Your task to perform on an android device: turn pop-ups on in chrome Image 0: 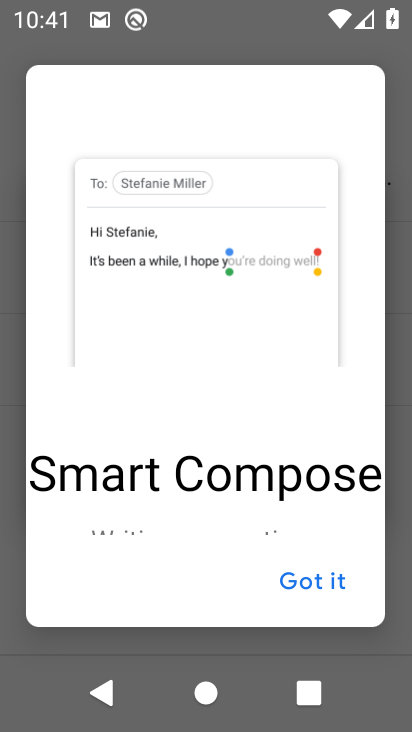
Step 0: press home button
Your task to perform on an android device: turn pop-ups on in chrome Image 1: 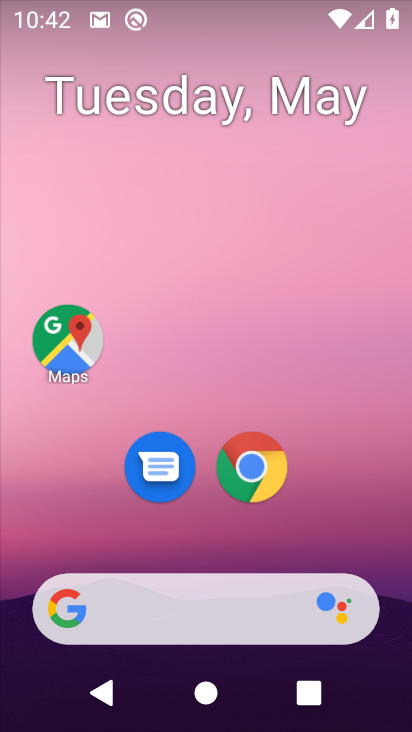
Step 1: drag from (170, 446) to (183, 400)
Your task to perform on an android device: turn pop-ups on in chrome Image 2: 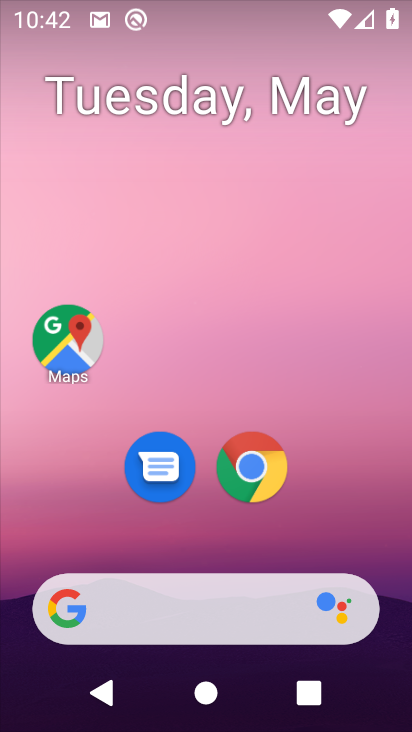
Step 2: click (239, 449)
Your task to perform on an android device: turn pop-ups on in chrome Image 3: 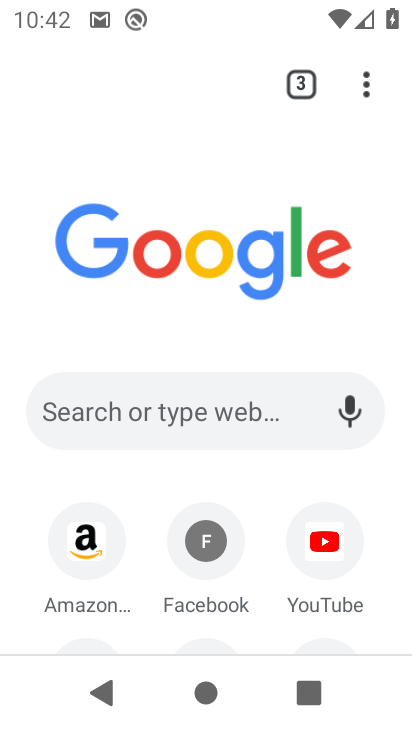
Step 3: click (361, 94)
Your task to perform on an android device: turn pop-ups on in chrome Image 4: 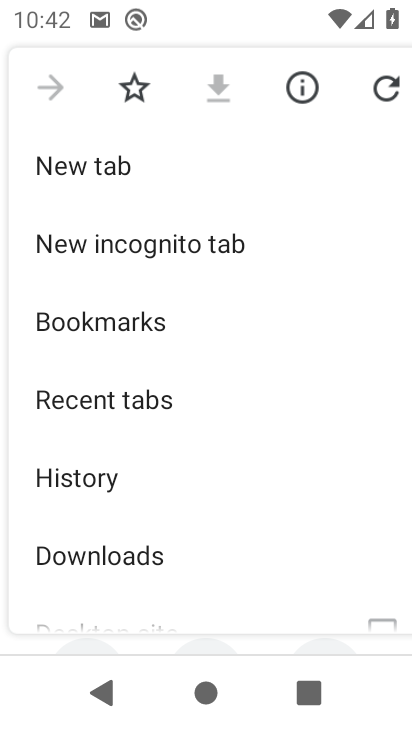
Step 4: drag from (154, 503) to (276, 21)
Your task to perform on an android device: turn pop-ups on in chrome Image 5: 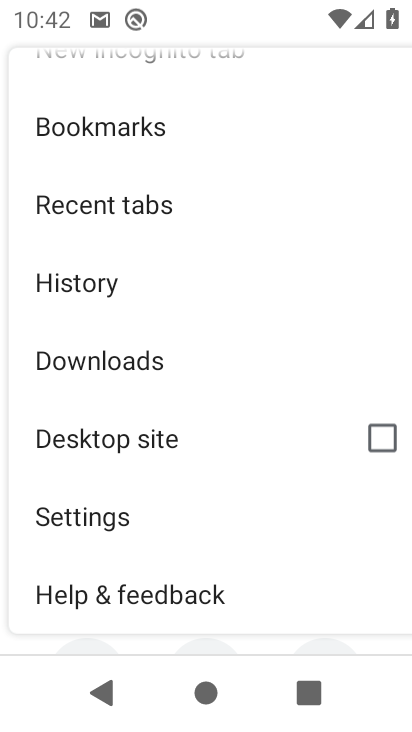
Step 5: click (137, 500)
Your task to perform on an android device: turn pop-ups on in chrome Image 6: 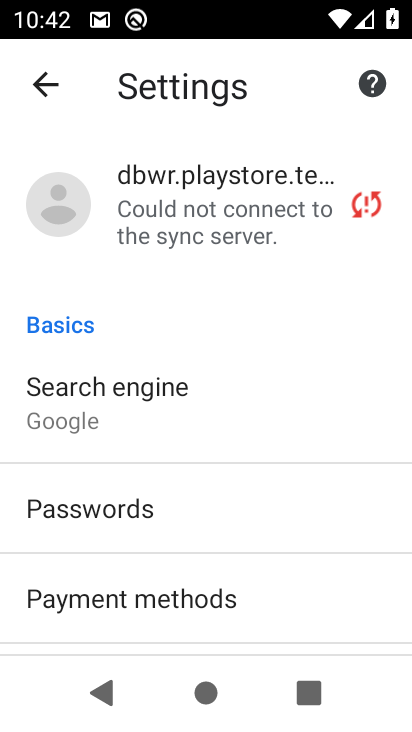
Step 6: drag from (219, 600) to (218, 138)
Your task to perform on an android device: turn pop-ups on in chrome Image 7: 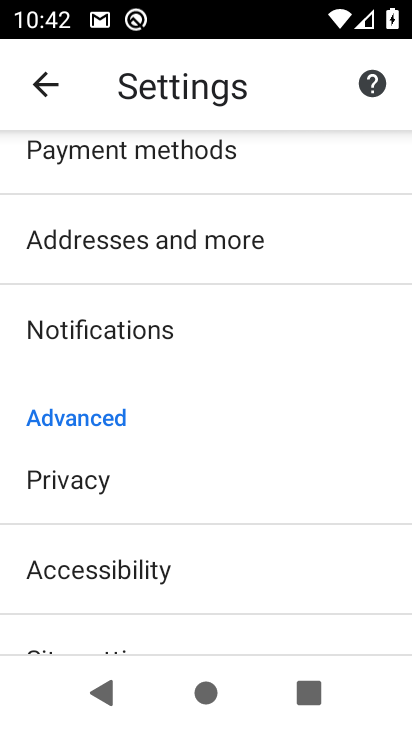
Step 7: drag from (185, 575) to (222, 321)
Your task to perform on an android device: turn pop-ups on in chrome Image 8: 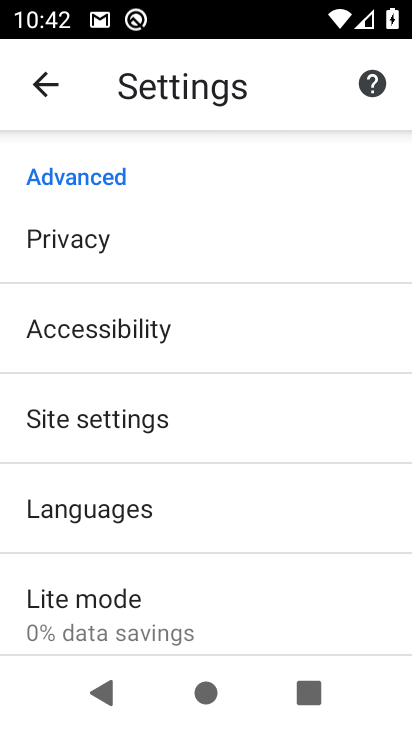
Step 8: click (122, 415)
Your task to perform on an android device: turn pop-ups on in chrome Image 9: 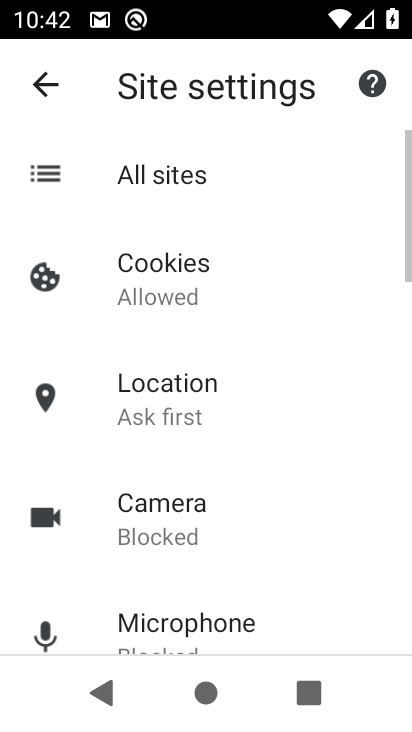
Step 9: drag from (236, 529) to (331, 17)
Your task to perform on an android device: turn pop-ups on in chrome Image 10: 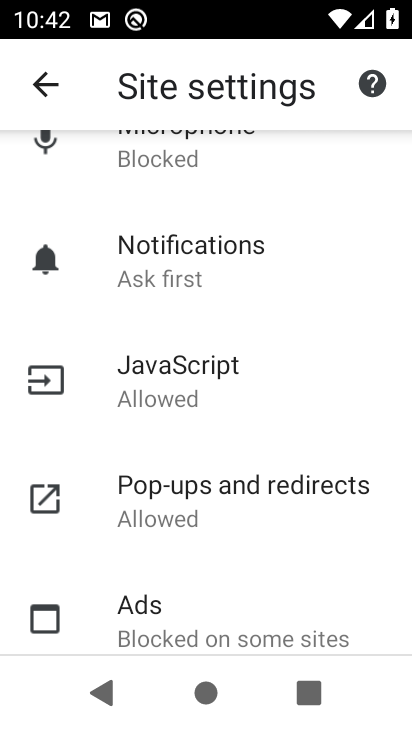
Step 10: click (200, 481)
Your task to perform on an android device: turn pop-ups on in chrome Image 11: 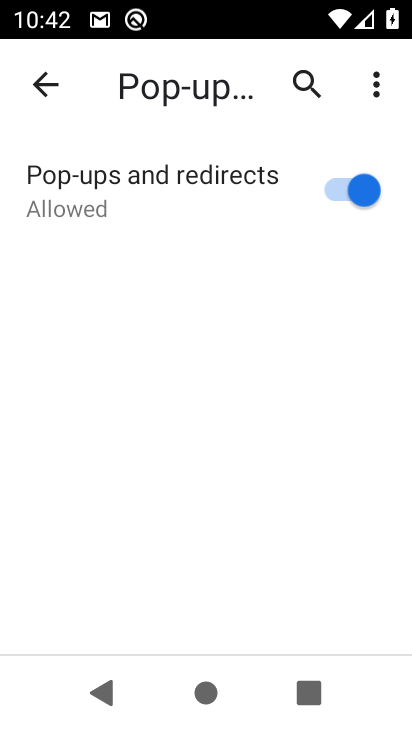
Step 11: drag from (275, 479) to (335, 223)
Your task to perform on an android device: turn pop-ups on in chrome Image 12: 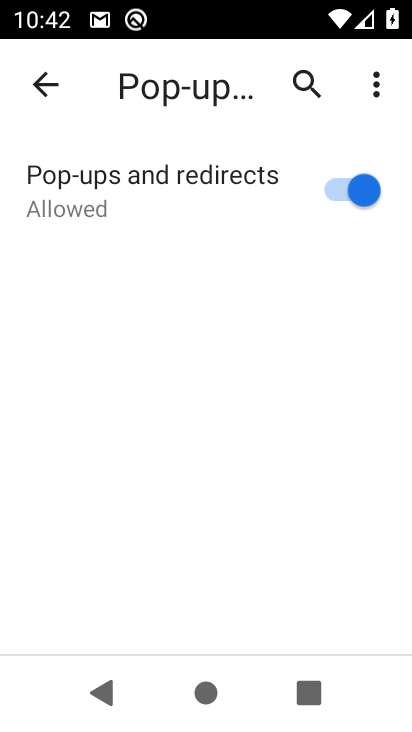
Step 12: click (346, 175)
Your task to perform on an android device: turn pop-ups on in chrome Image 13: 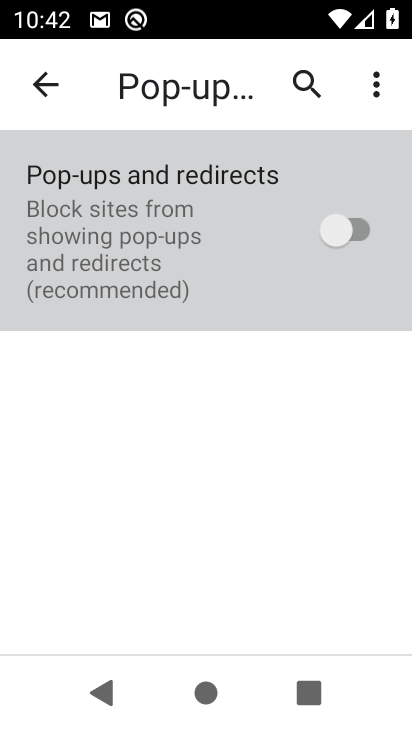
Step 13: click (346, 175)
Your task to perform on an android device: turn pop-ups on in chrome Image 14: 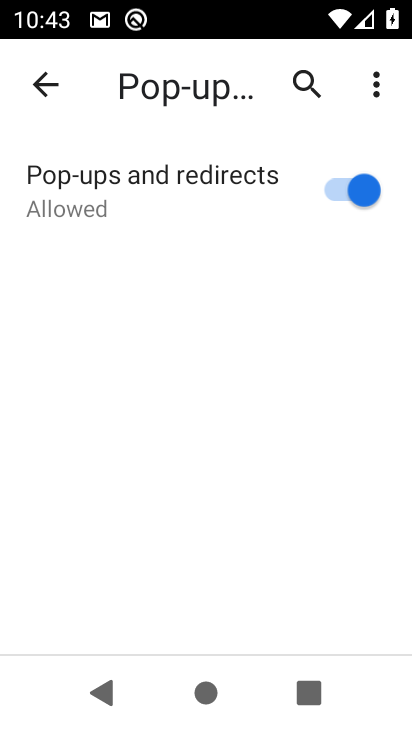
Step 14: task complete